Your task to perform on an android device: Open accessibility settings Image 0: 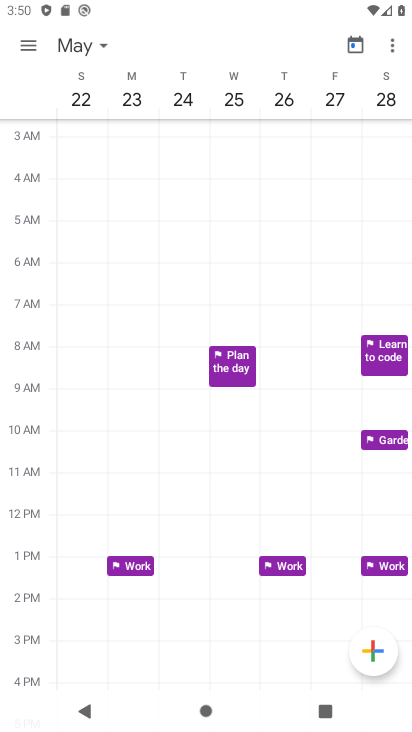
Step 0: press home button
Your task to perform on an android device: Open accessibility settings Image 1: 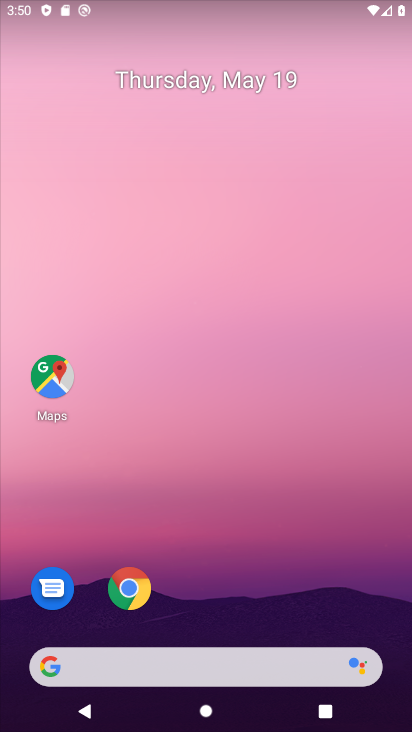
Step 1: drag from (199, 598) to (222, 102)
Your task to perform on an android device: Open accessibility settings Image 2: 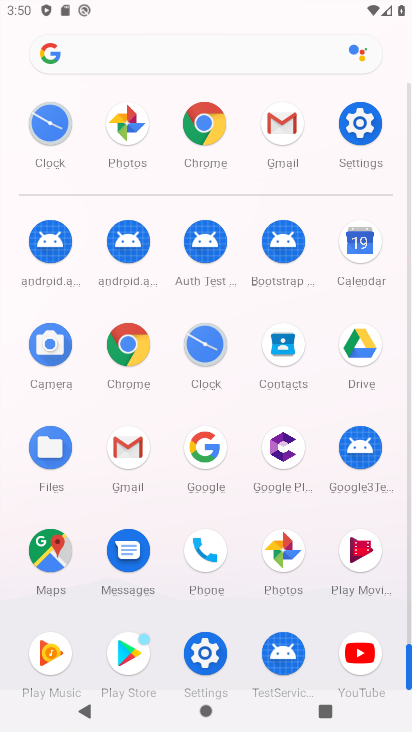
Step 2: click (355, 137)
Your task to perform on an android device: Open accessibility settings Image 3: 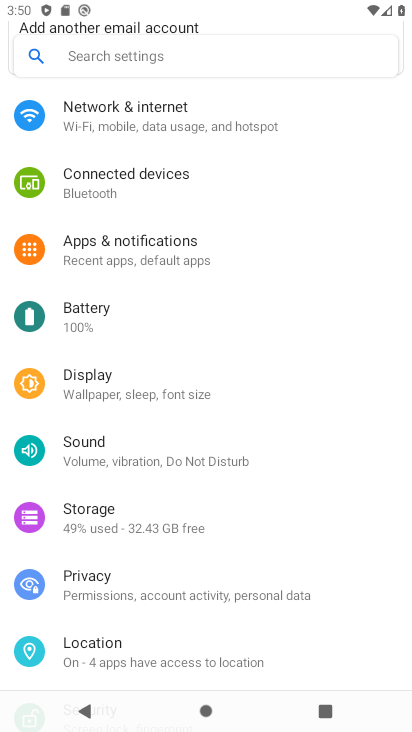
Step 3: drag from (130, 631) to (198, 297)
Your task to perform on an android device: Open accessibility settings Image 4: 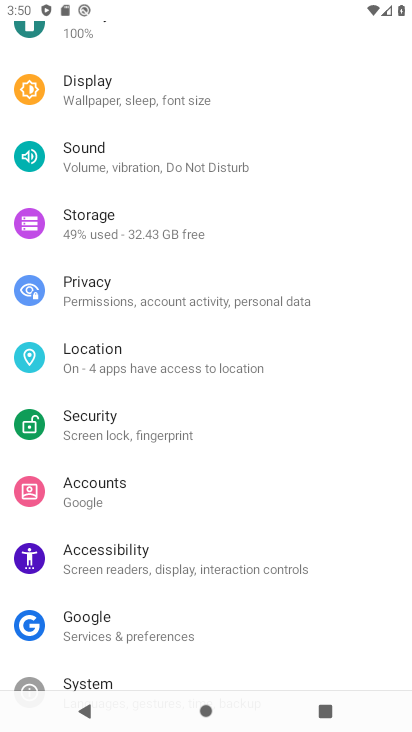
Step 4: click (131, 559)
Your task to perform on an android device: Open accessibility settings Image 5: 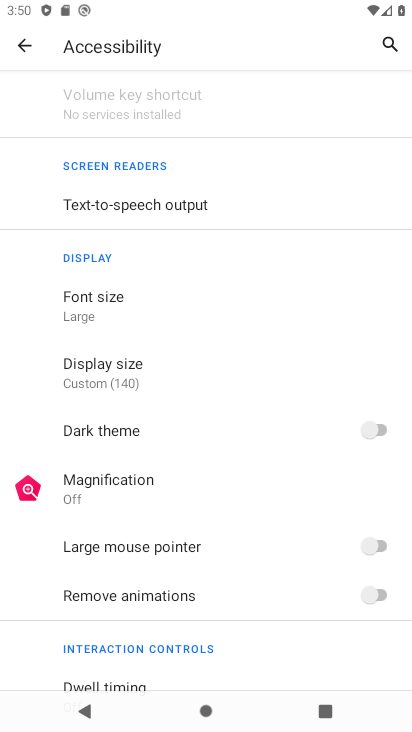
Step 5: task complete